Your task to perform on an android device: Open maps Image 0: 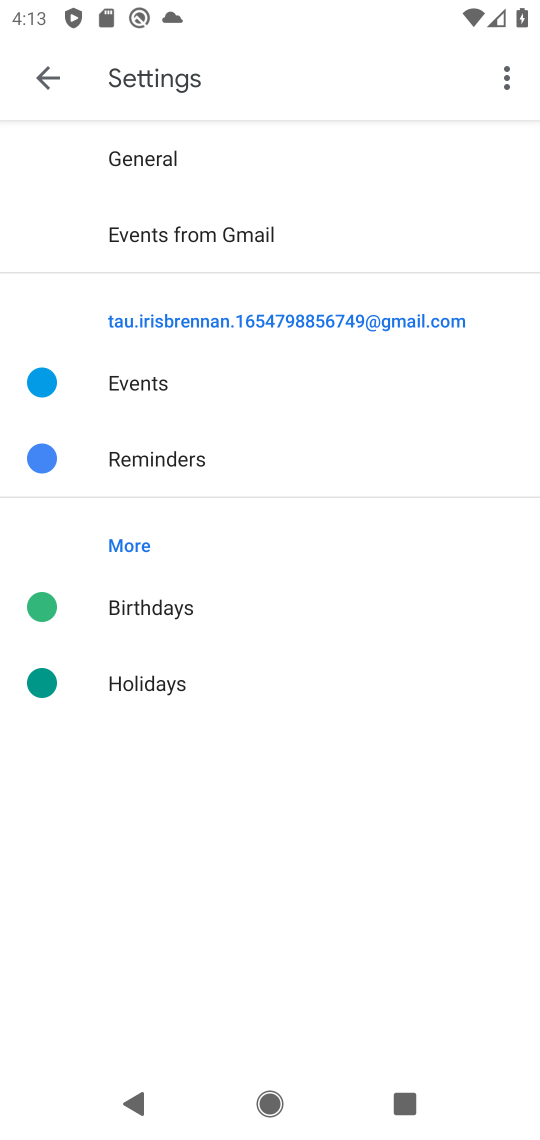
Step 0: press home button
Your task to perform on an android device: Open maps Image 1: 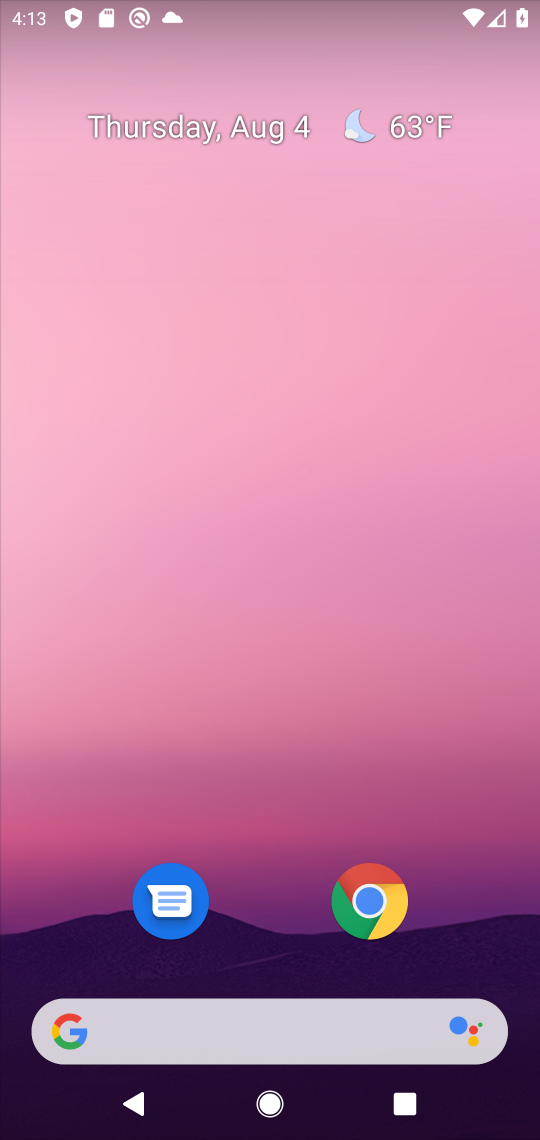
Step 1: drag from (314, 864) to (343, 77)
Your task to perform on an android device: Open maps Image 2: 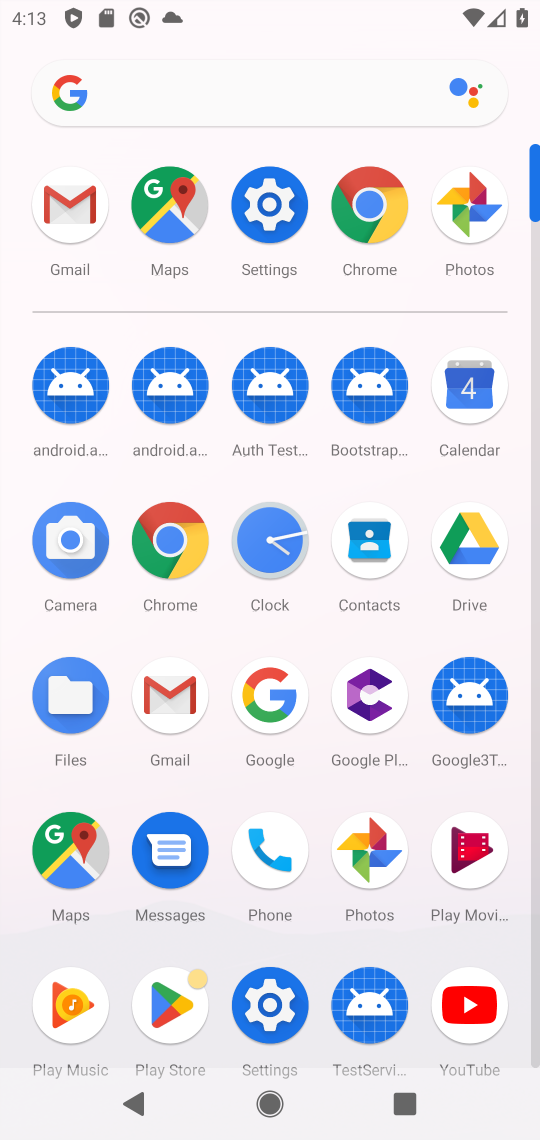
Step 2: click (65, 848)
Your task to perform on an android device: Open maps Image 3: 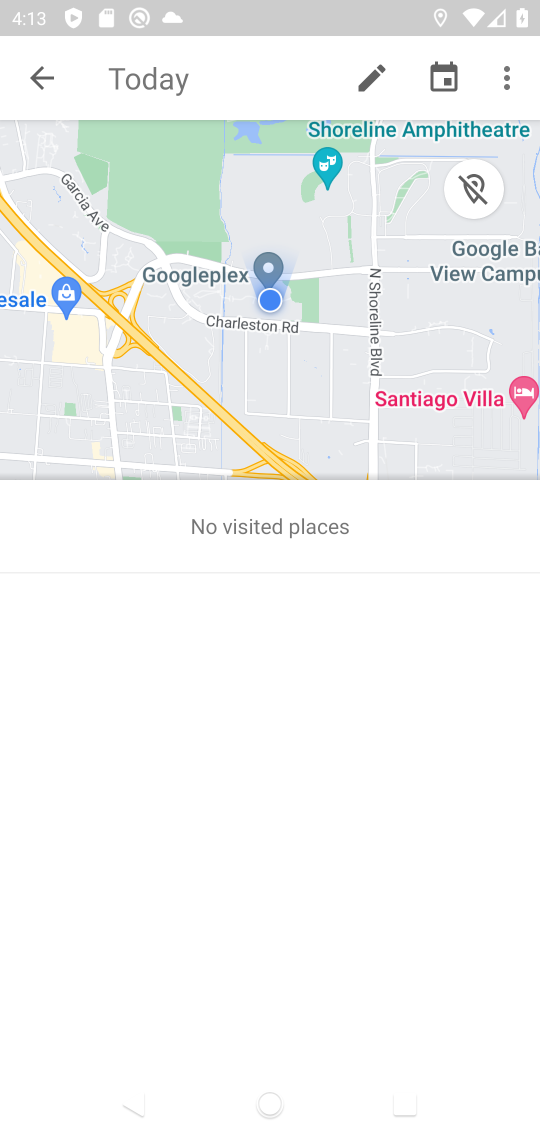
Step 3: click (38, 72)
Your task to perform on an android device: Open maps Image 4: 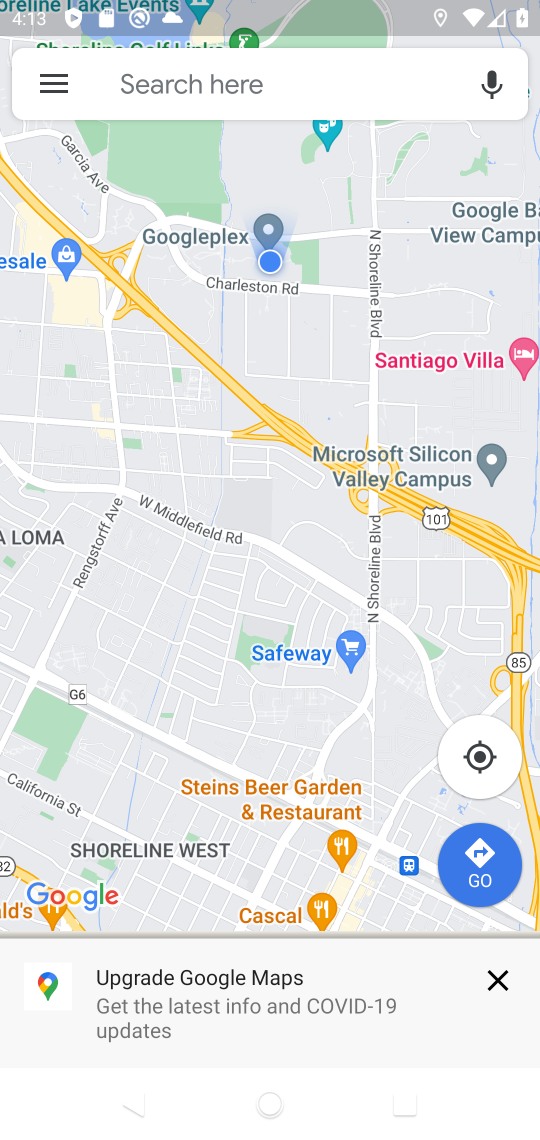
Step 4: task complete